Your task to perform on an android device: set default search engine in the chrome app Image 0: 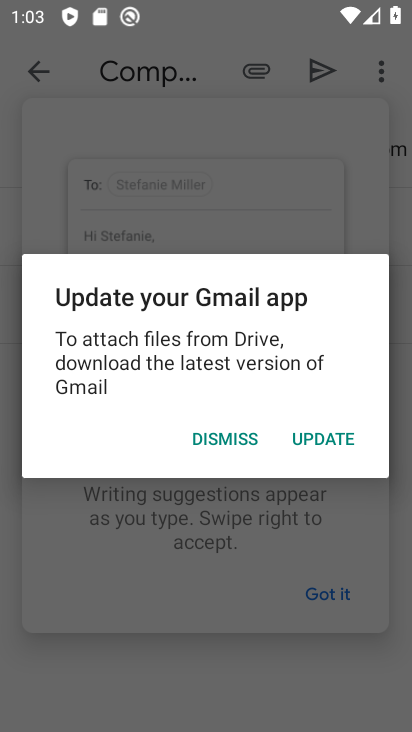
Step 0: press home button
Your task to perform on an android device: set default search engine in the chrome app Image 1: 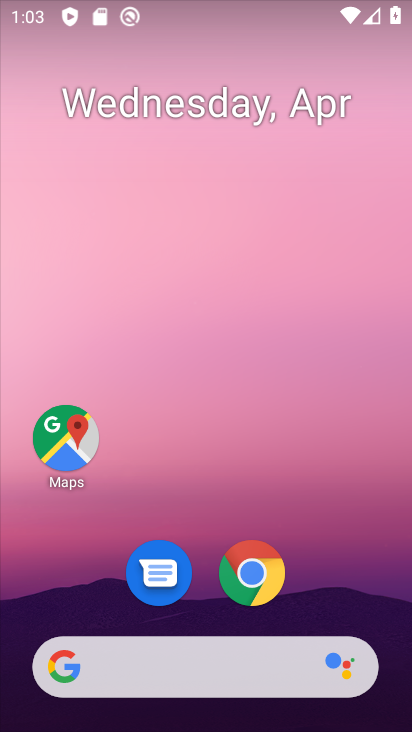
Step 1: click (252, 564)
Your task to perform on an android device: set default search engine in the chrome app Image 2: 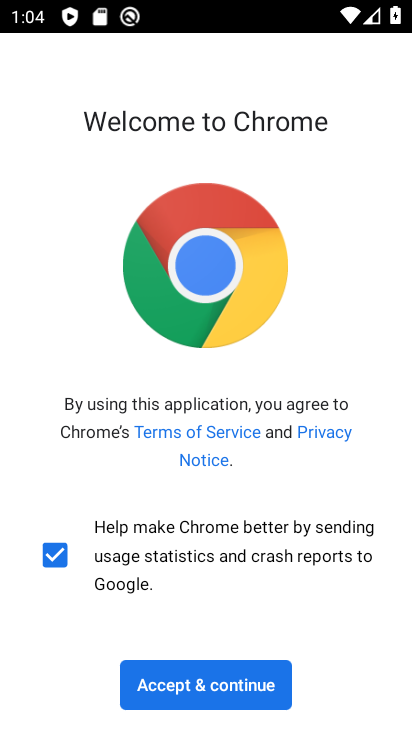
Step 2: click (250, 688)
Your task to perform on an android device: set default search engine in the chrome app Image 3: 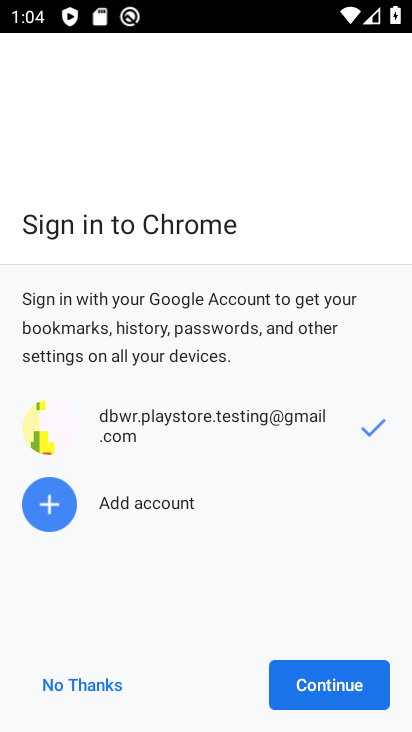
Step 3: click (354, 693)
Your task to perform on an android device: set default search engine in the chrome app Image 4: 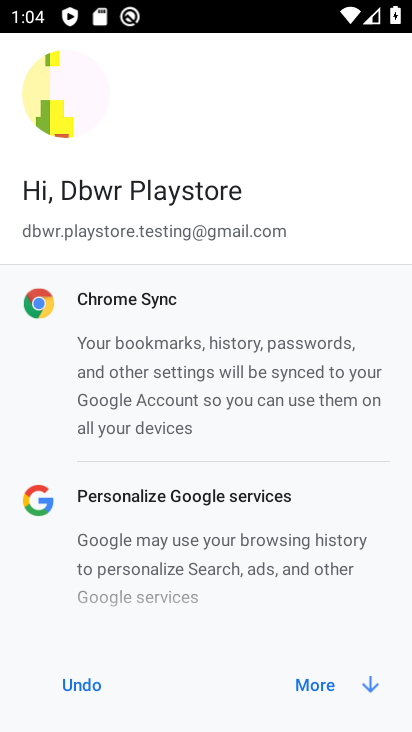
Step 4: click (329, 676)
Your task to perform on an android device: set default search engine in the chrome app Image 5: 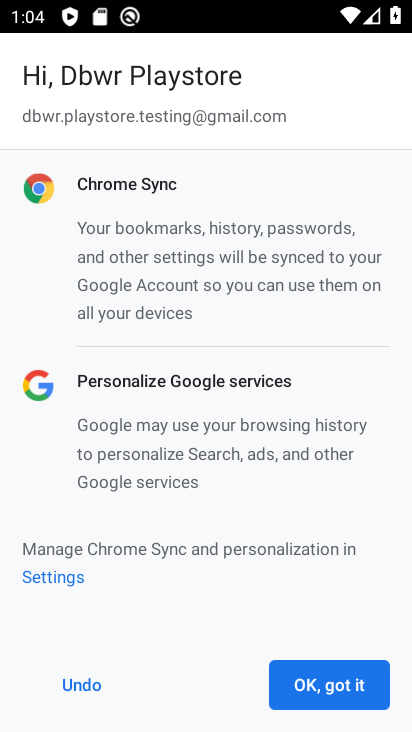
Step 5: click (310, 680)
Your task to perform on an android device: set default search engine in the chrome app Image 6: 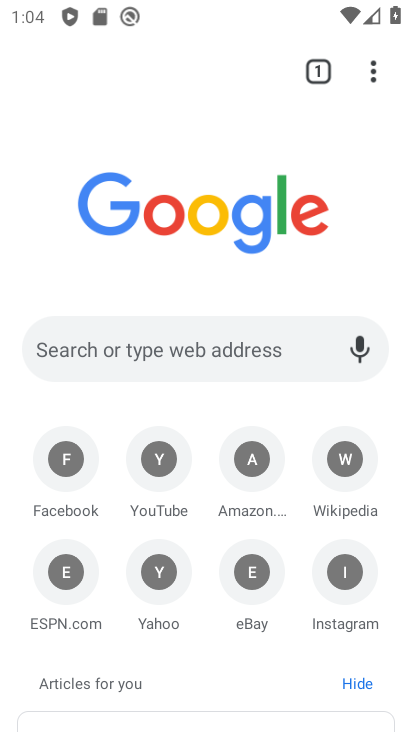
Step 6: click (367, 77)
Your task to perform on an android device: set default search engine in the chrome app Image 7: 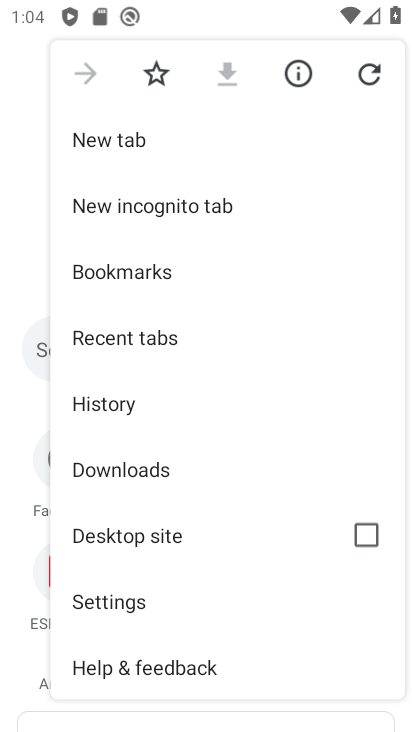
Step 7: click (122, 596)
Your task to perform on an android device: set default search engine in the chrome app Image 8: 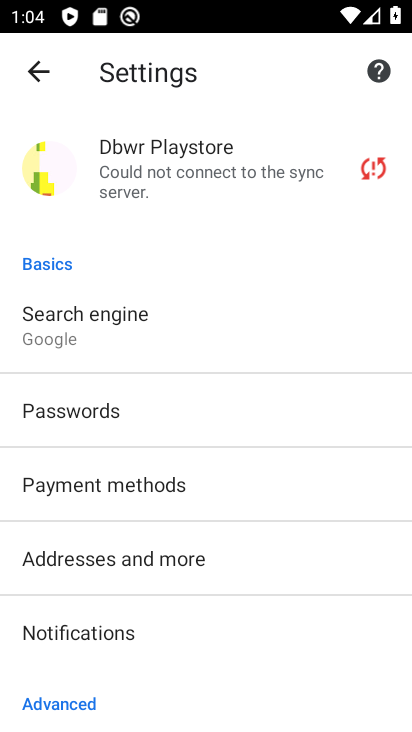
Step 8: click (93, 332)
Your task to perform on an android device: set default search engine in the chrome app Image 9: 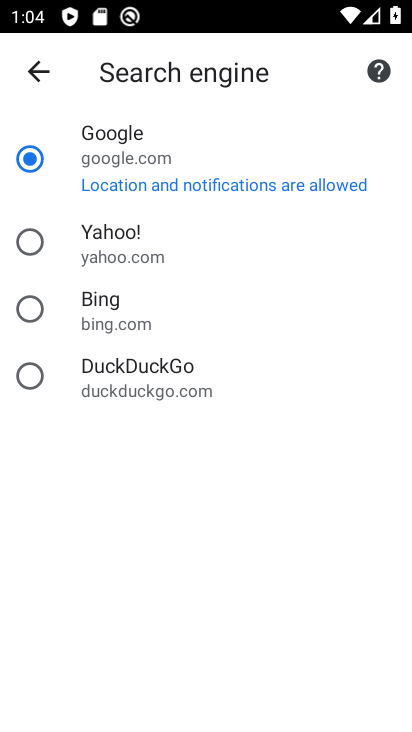
Step 9: task complete